Your task to perform on an android device: toggle improve location accuracy Image 0: 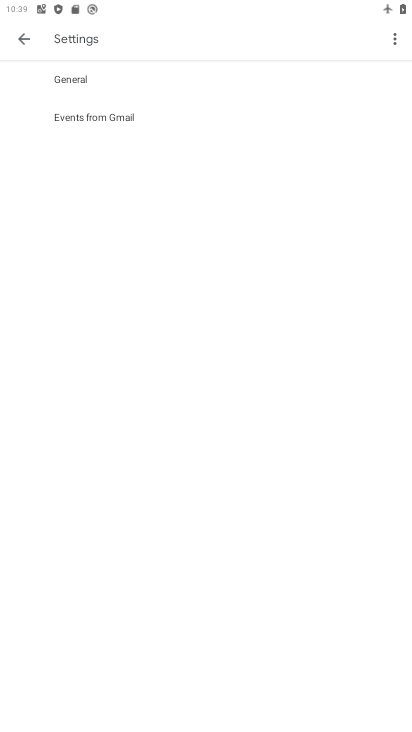
Step 0: press home button
Your task to perform on an android device: toggle improve location accuracy Image 1: 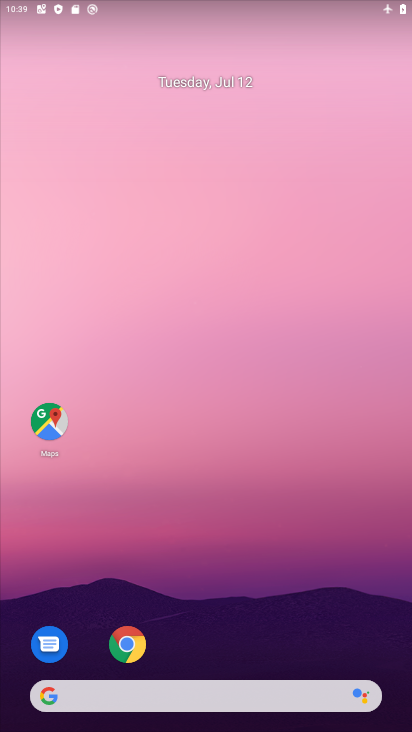
Step 1: drag from (309, 574) to (404, 23)
Your task to perform on an android device: toggle improve location accuracy Image 2: 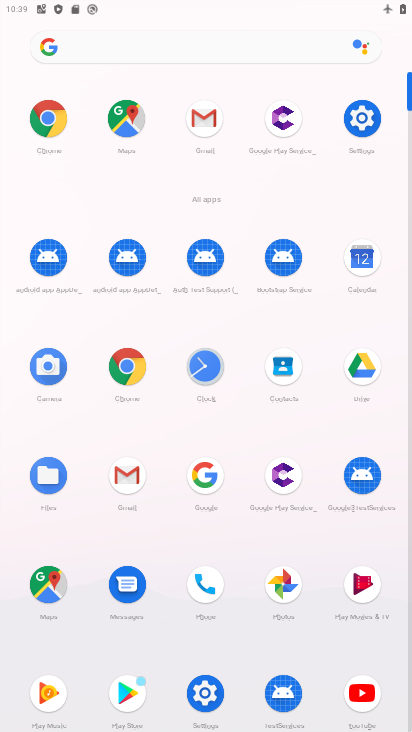
Step 2: click (366, 123)
Your task to perform on an android device: toggle improve location accuracy Image 3: 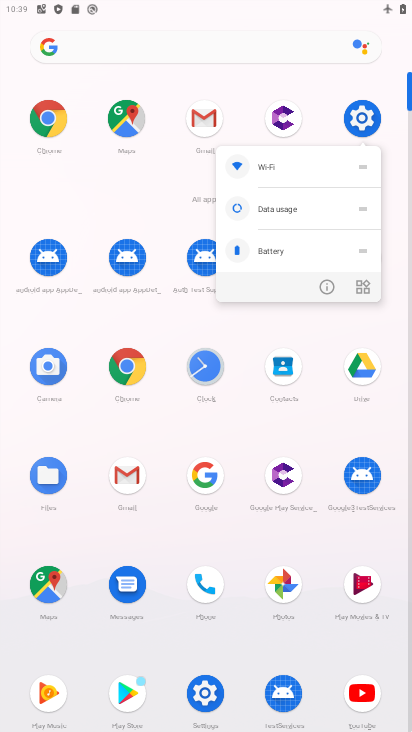
Step 3: click (366, 123)
Your task to perform on an android device: toggle improve location accuracy Image 4: 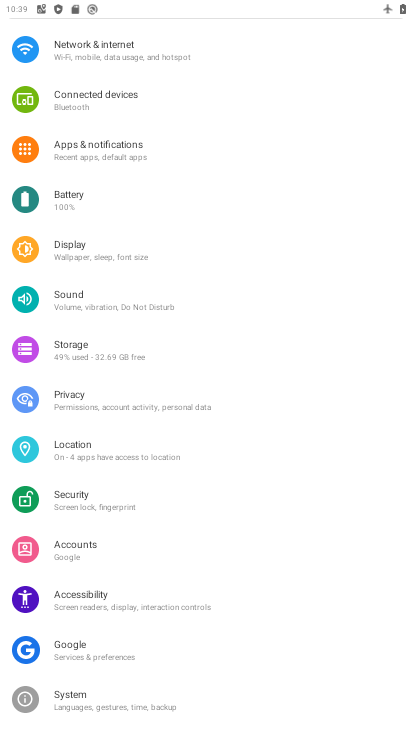
Step 4: click (82, 433)
Your task to perform on an android device: toggle improve location accuracy Image 5: 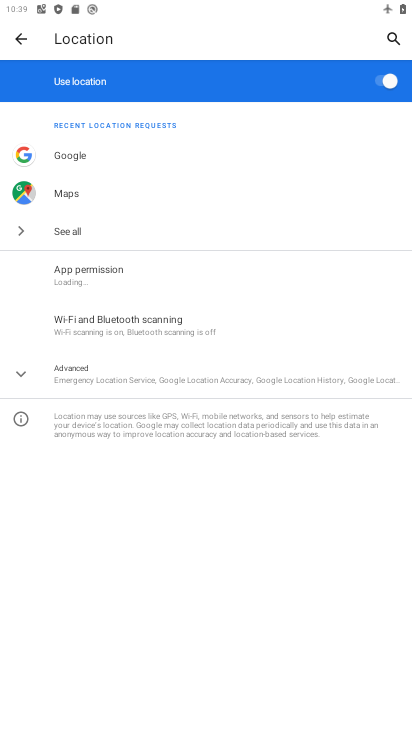
Step 5: click (124, 385)
Your task to perform on an android device: toggle improve location accuracy Image 6: 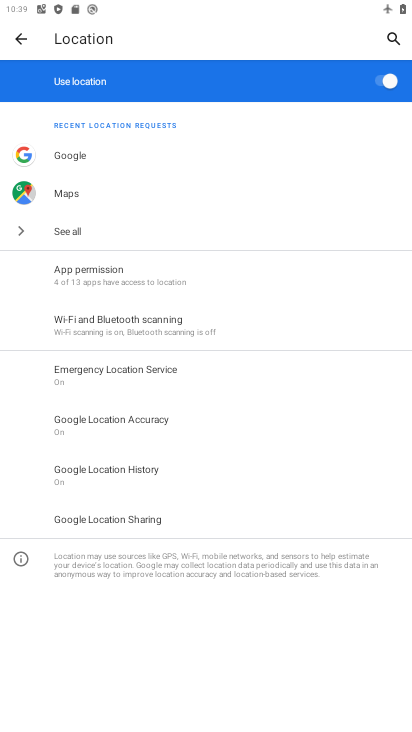
Step 6: click (123, 417)
Your task to perform on an android device: toggle improve location accuracy Image 7: 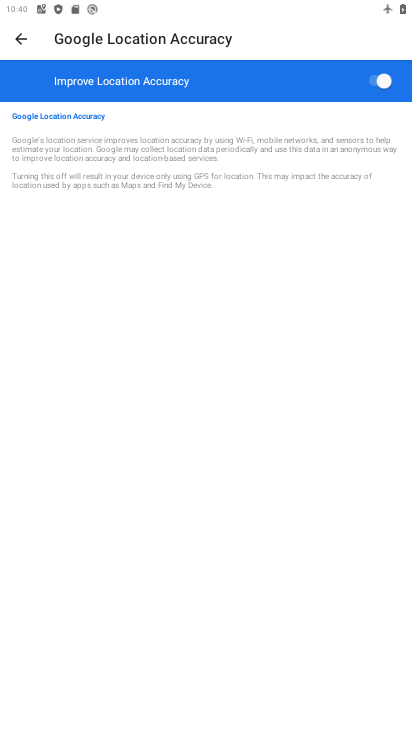
Step 7: click (382, 89)
Your task to perform on an android device: toggle improve location accuracy Image 8: 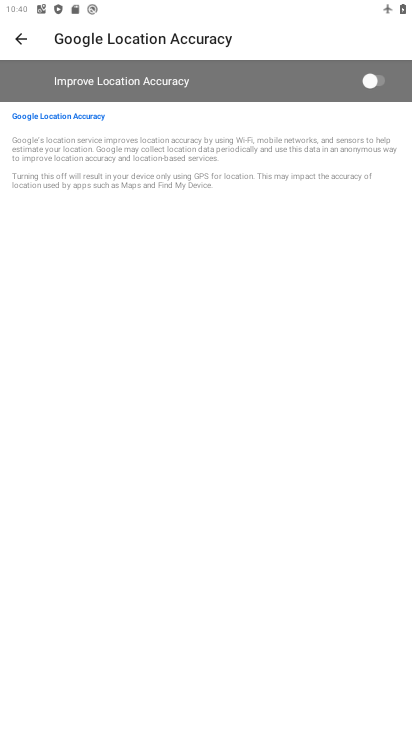
Step 8: task complete